Your task to perform on an android device: Show me productivity apps on the Play Store Image 0: 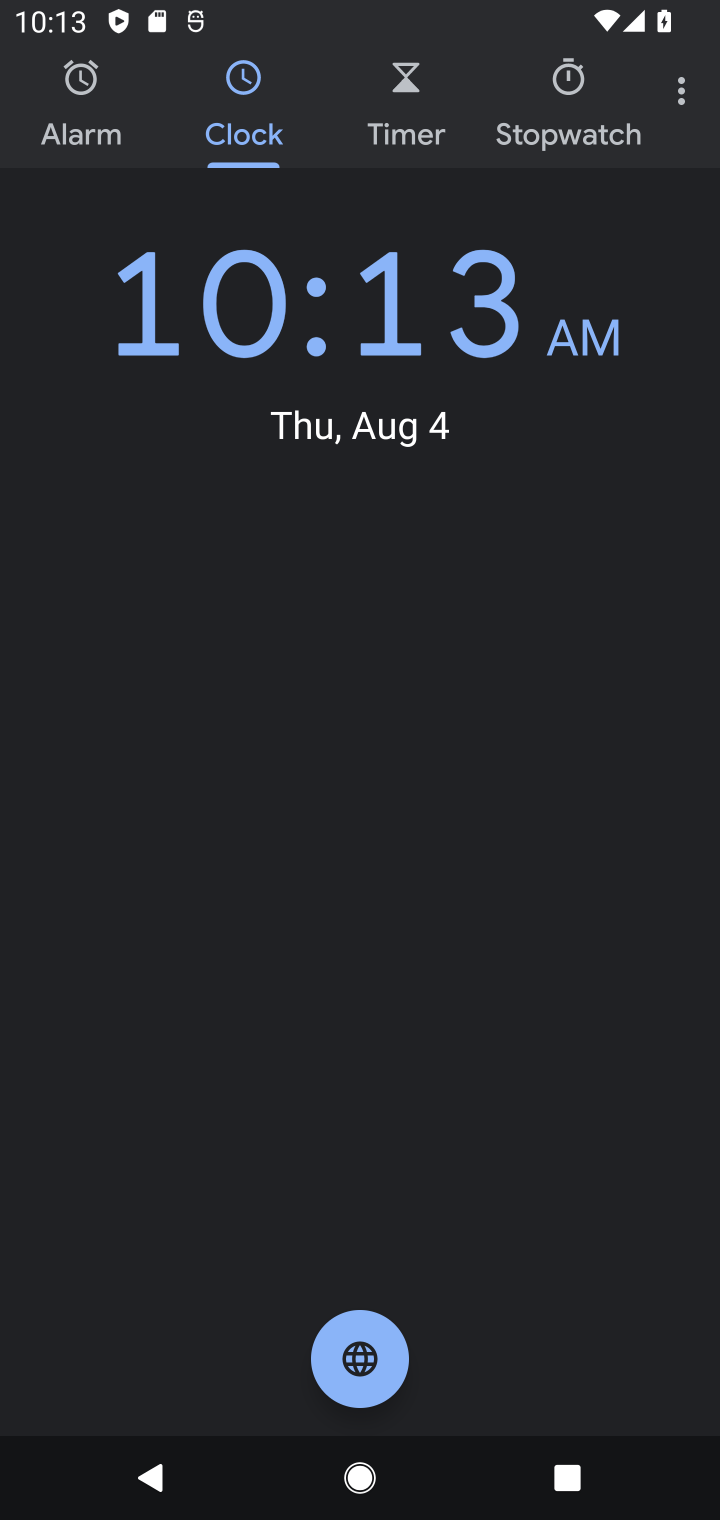
Step 0: press home button
Your task to perform on an android device: Show me productivity apps on the Play Store Image 1: 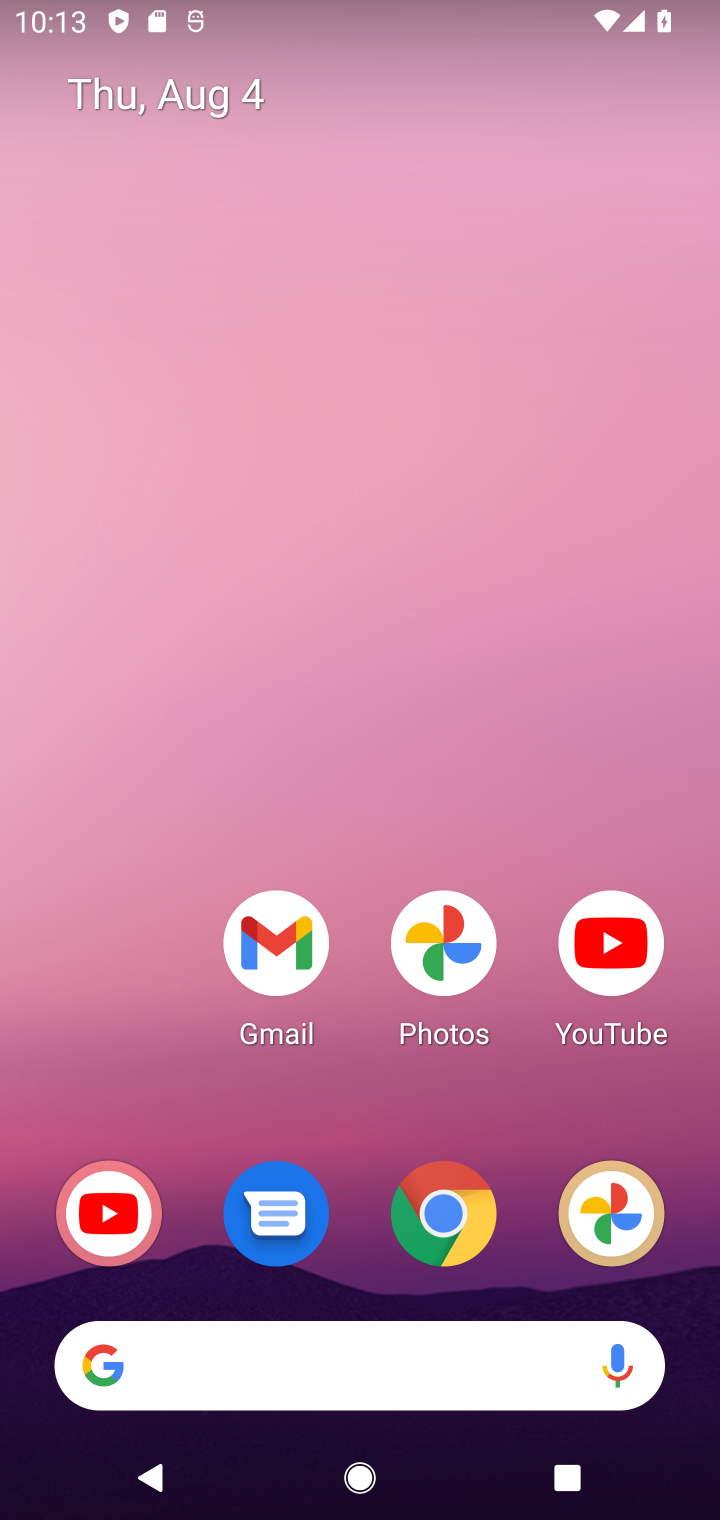
Step 1: drag from (528, 1128) to (482, 398)
Your task to perform on an android device: Show me productivity apps on the Play Store Image 2: 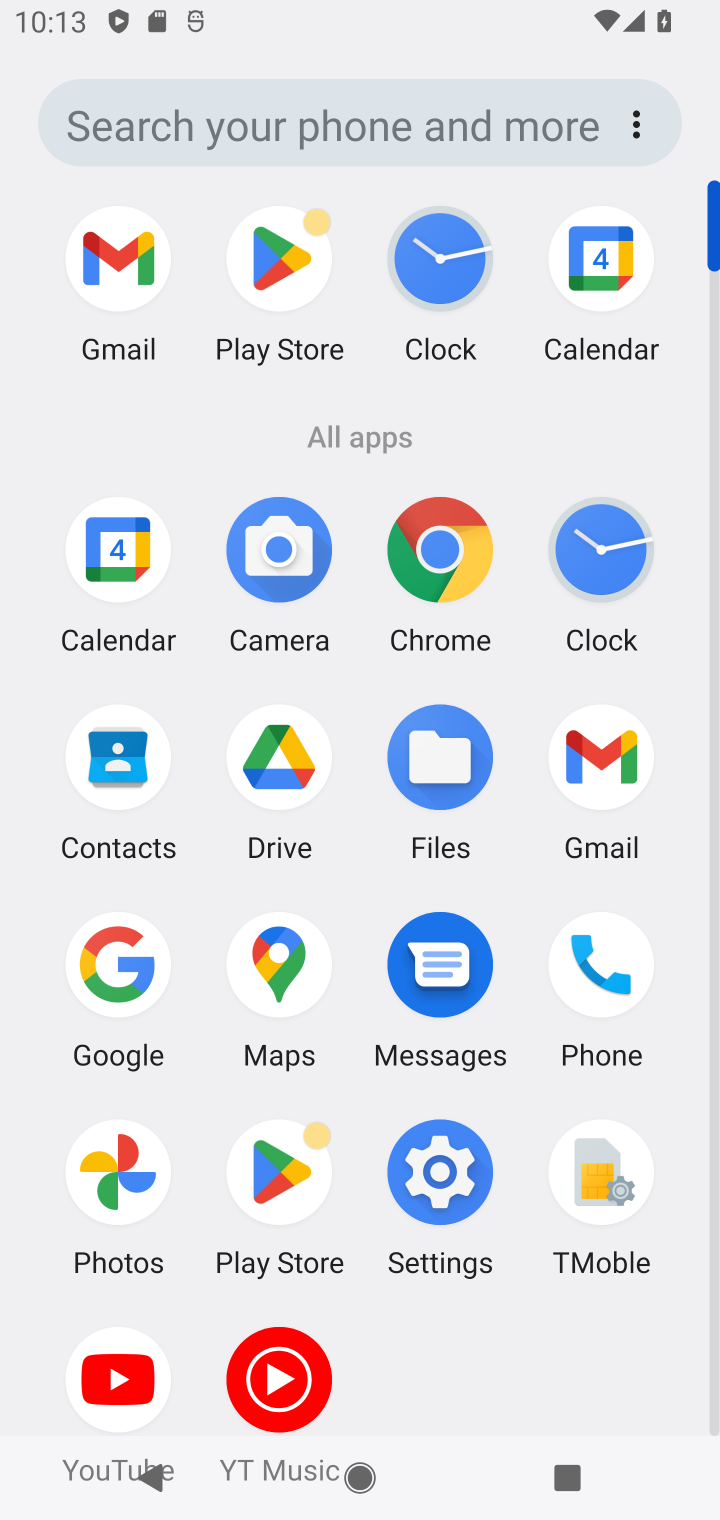
Step 2: click (269, 1163)
Your task to perform on an android device: Show me productivity apps on the Play Store Image 3: 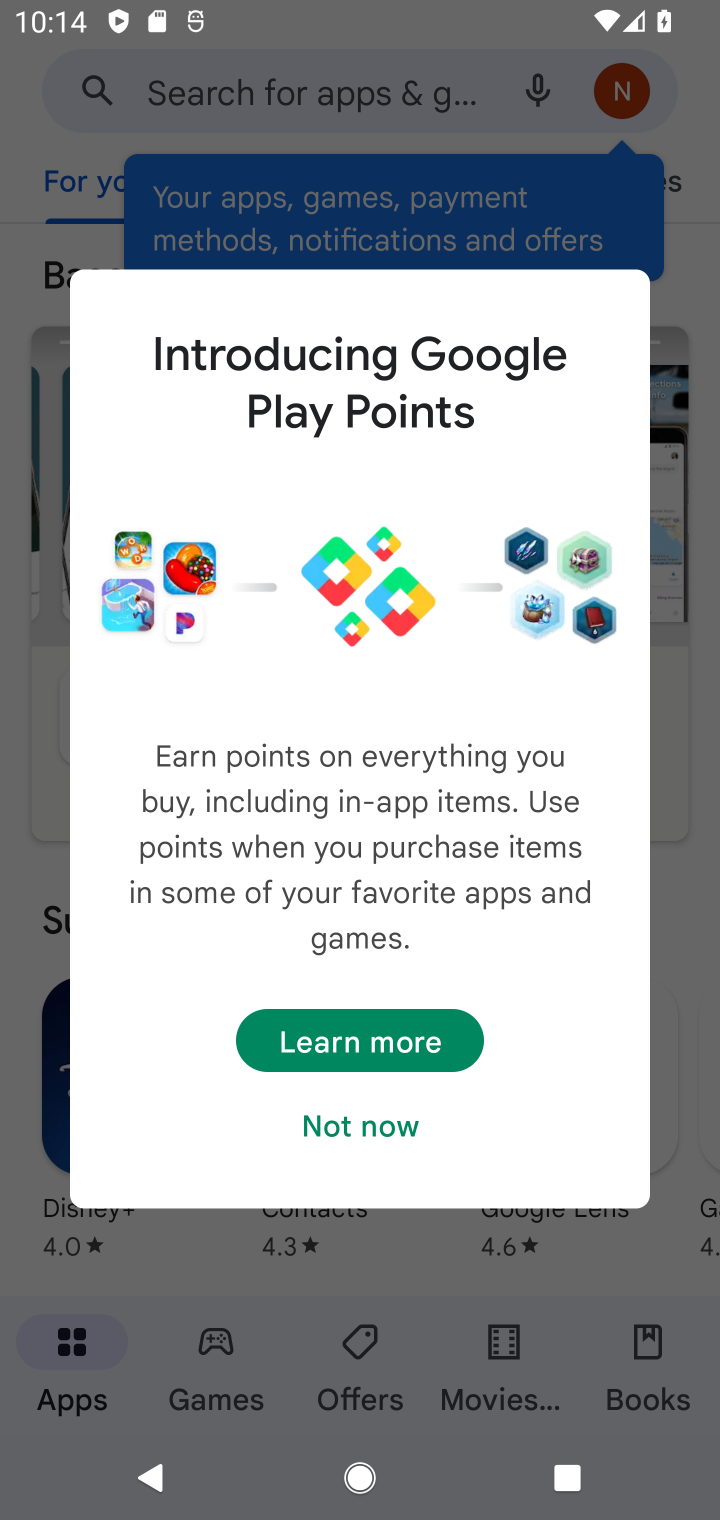
Step 3: click (318, 1135)
Your task to perform on an android device: Show me productivity apps on the Play Store Image 4: 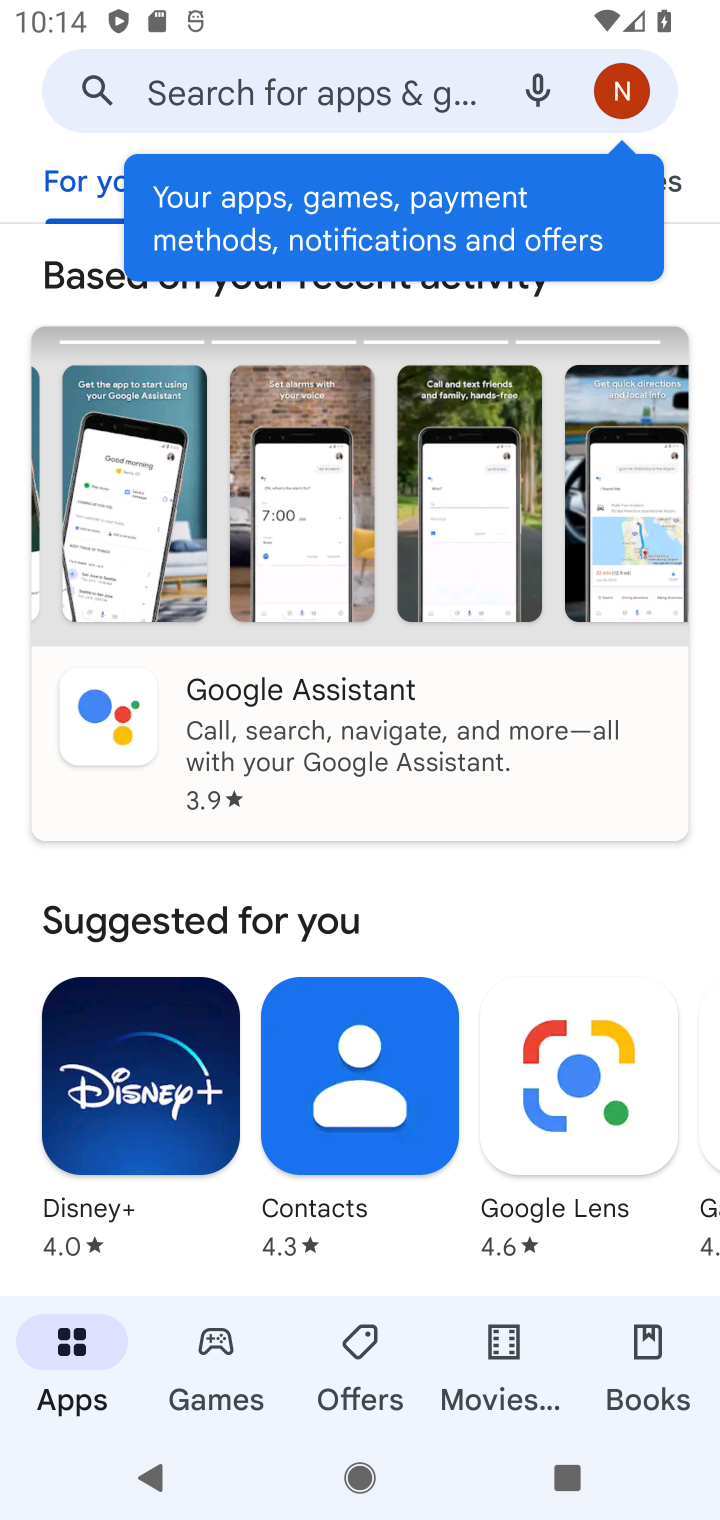
Step 4: press home button
Your task to perform on an android device: Show me productivity apps on the Play Store Image 5: 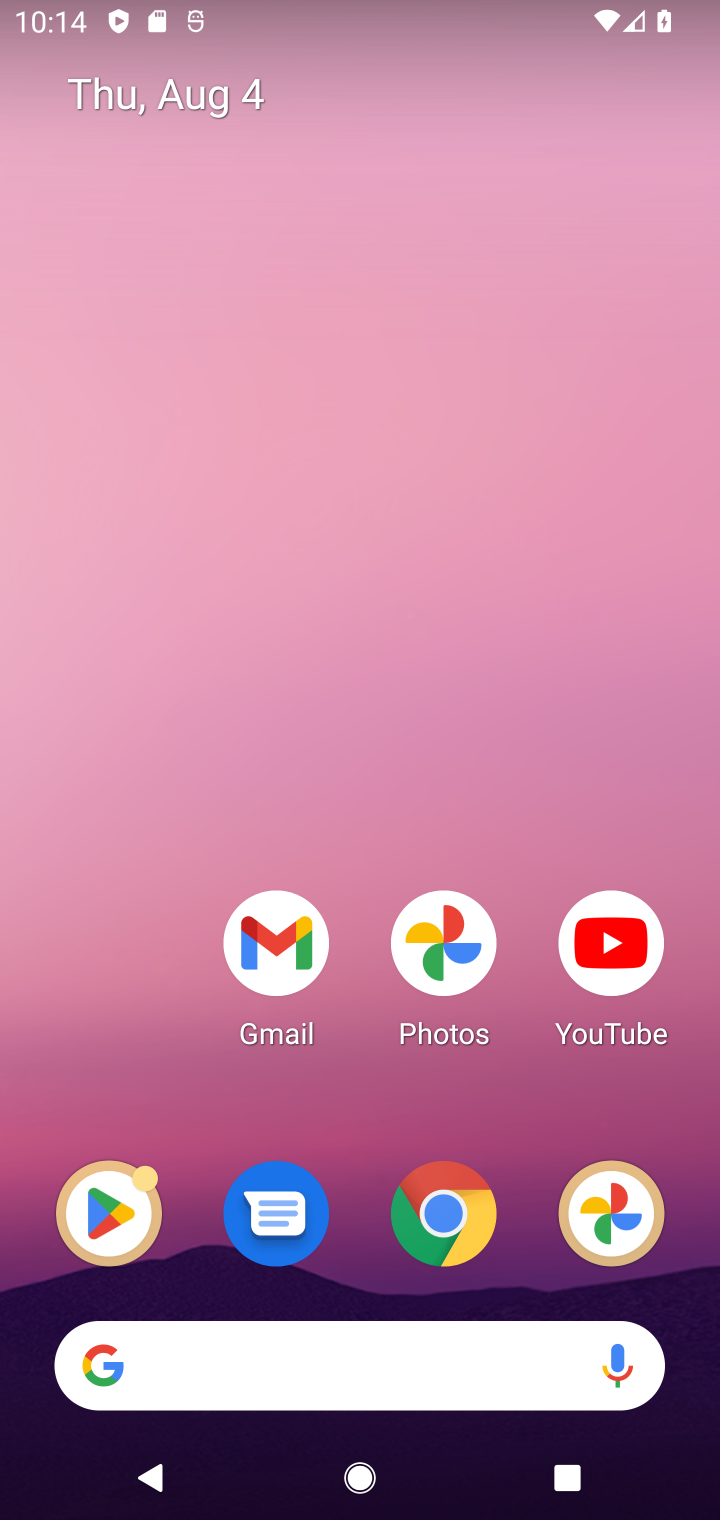
Step 5: click (112, 1220)
Your task to perform on an android device: Show me productivity apps on the Play Store Image 6: 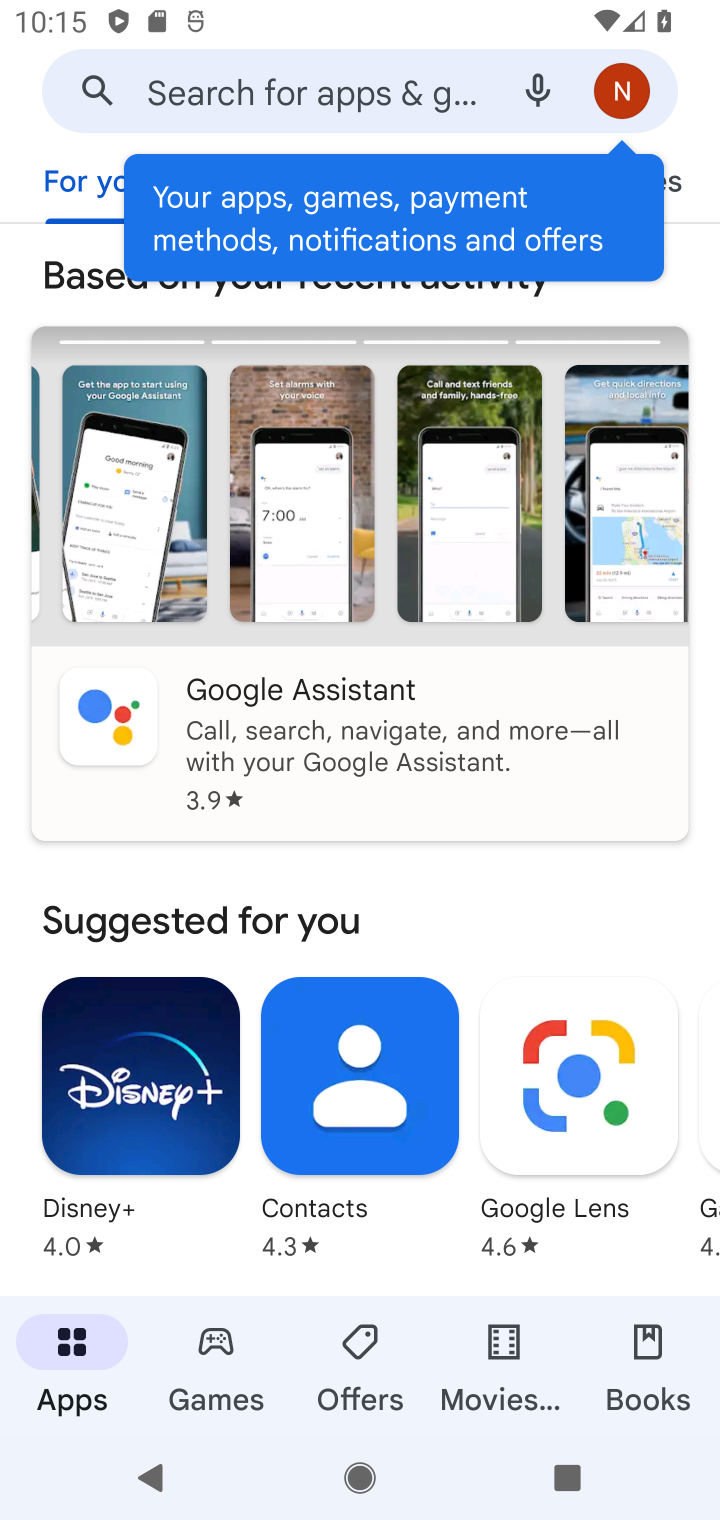
Step 6: drag from (483, 873) to (511, 1113)
Your task to perform on an android device: Show me productivity apps on the Play Store Image 7: 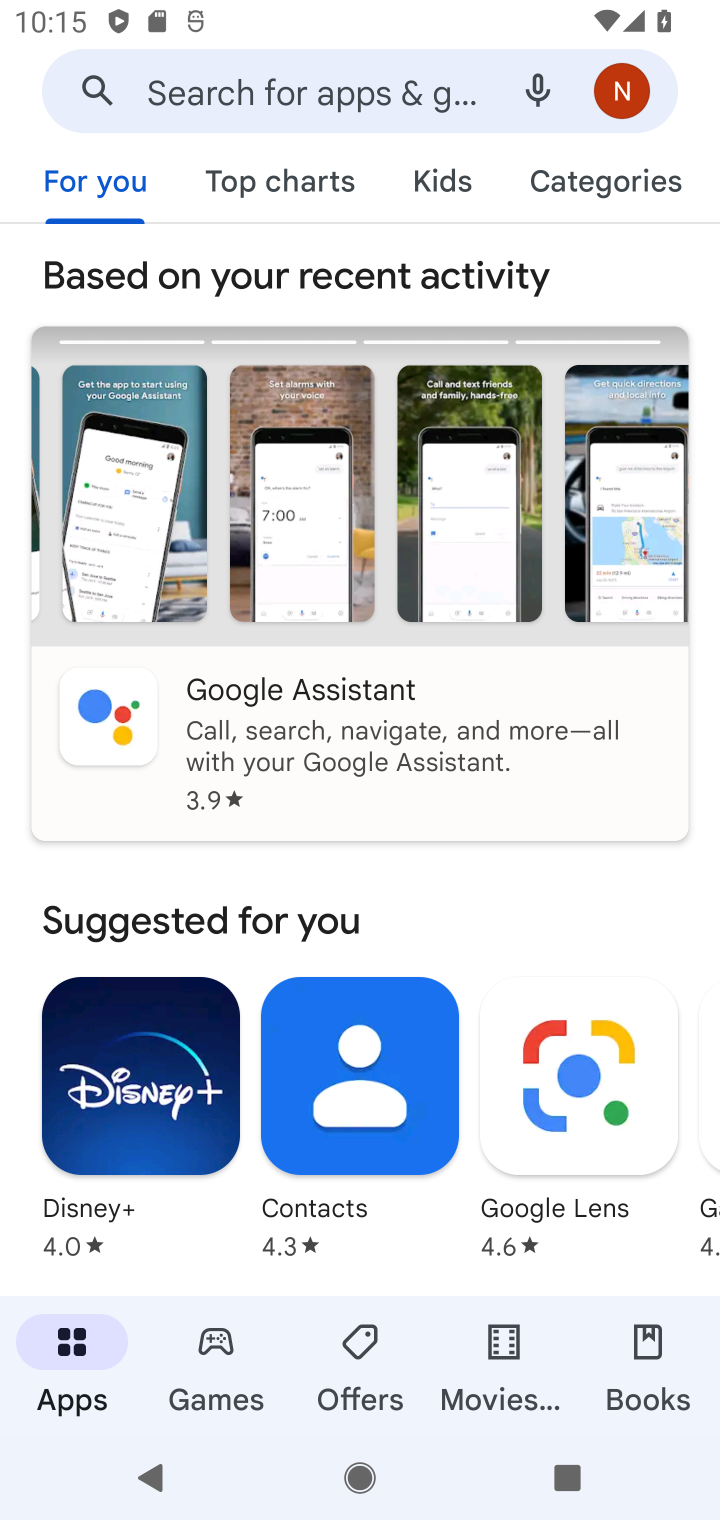
Step 7: click (269, 181)
Your task to perform on an android device: Show me productivity apps on the Play Store Image 8: 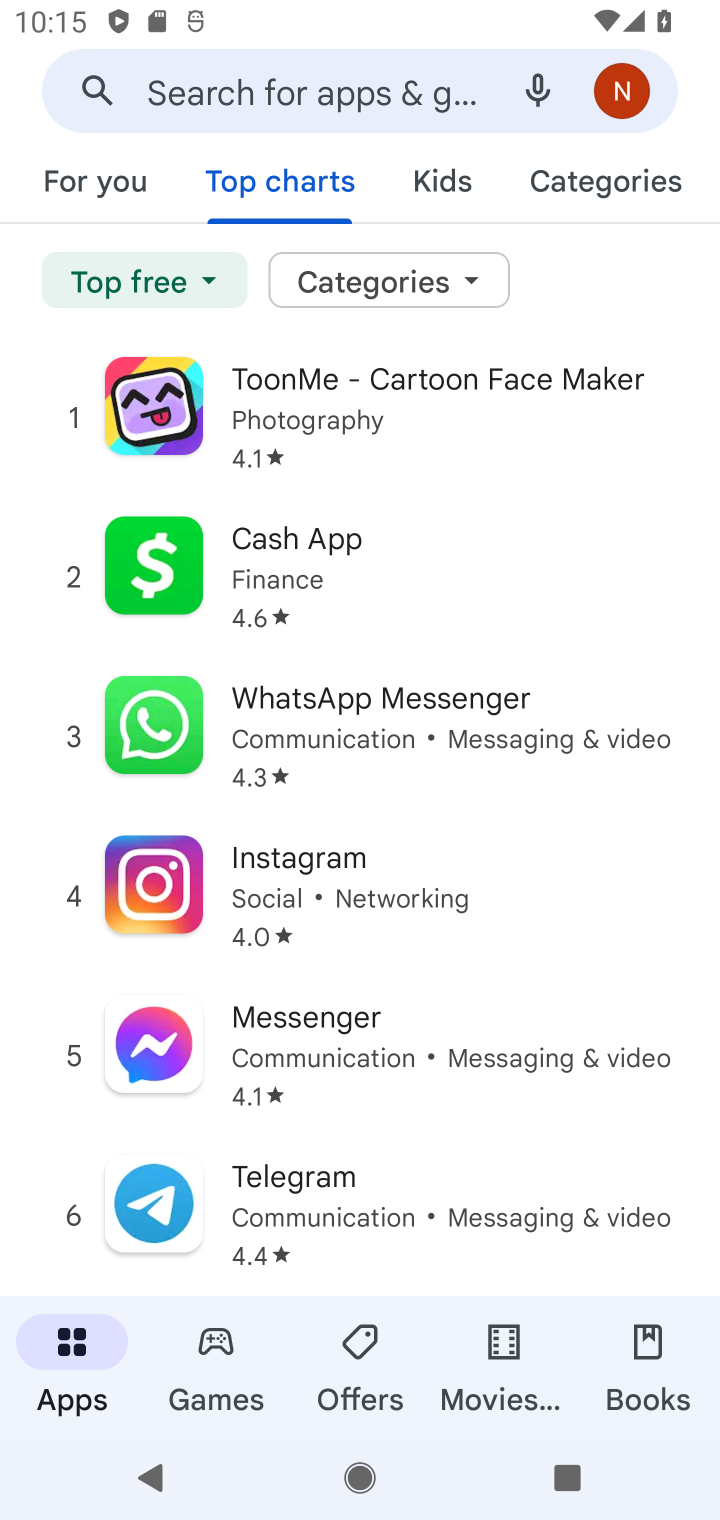
Step 8: click (534, 185)
Your task to perform on an android device: Show me productivity apps on the Play Store Image 9: 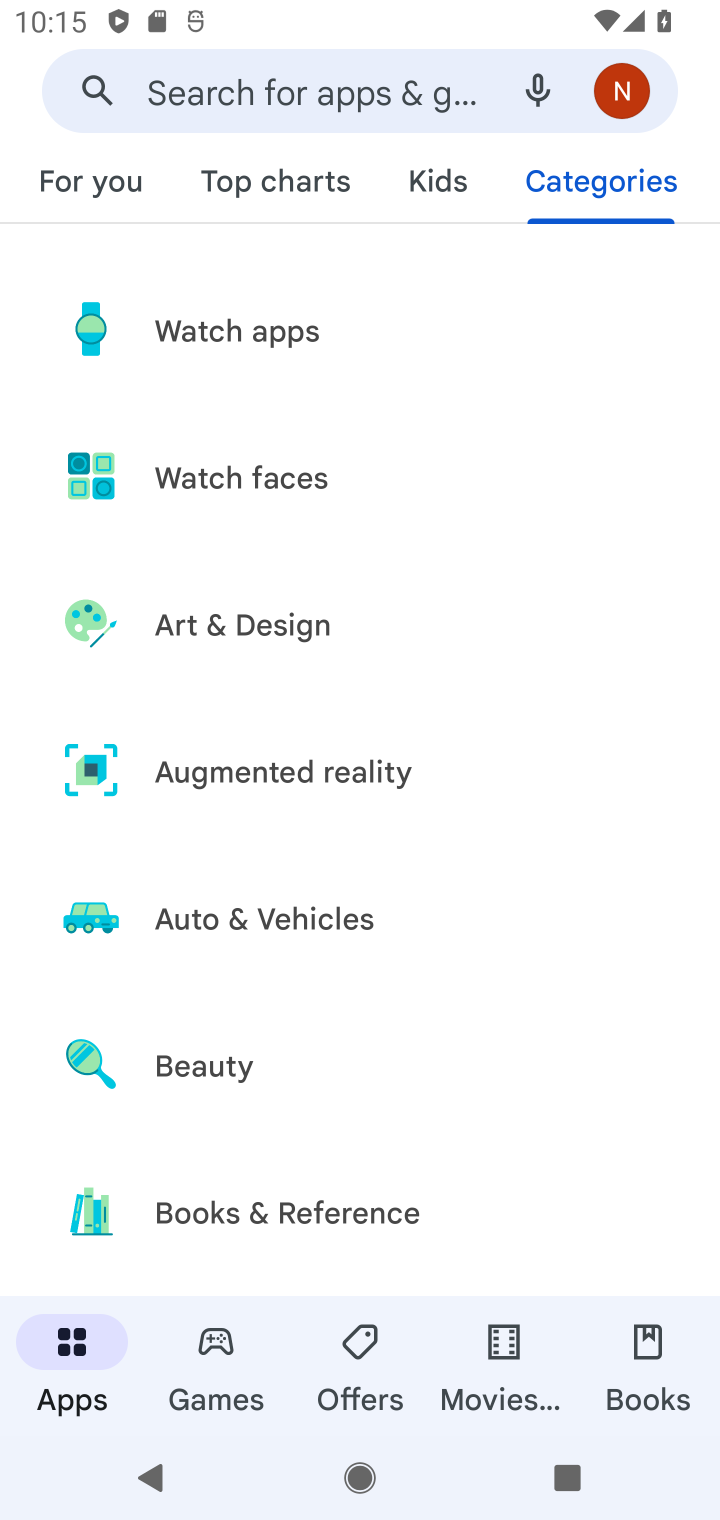
Step 9: drag from (379, 1180) to (257, 174)
Your task to perform on an android device: Show me productivity apps on the Play Store Image 10: 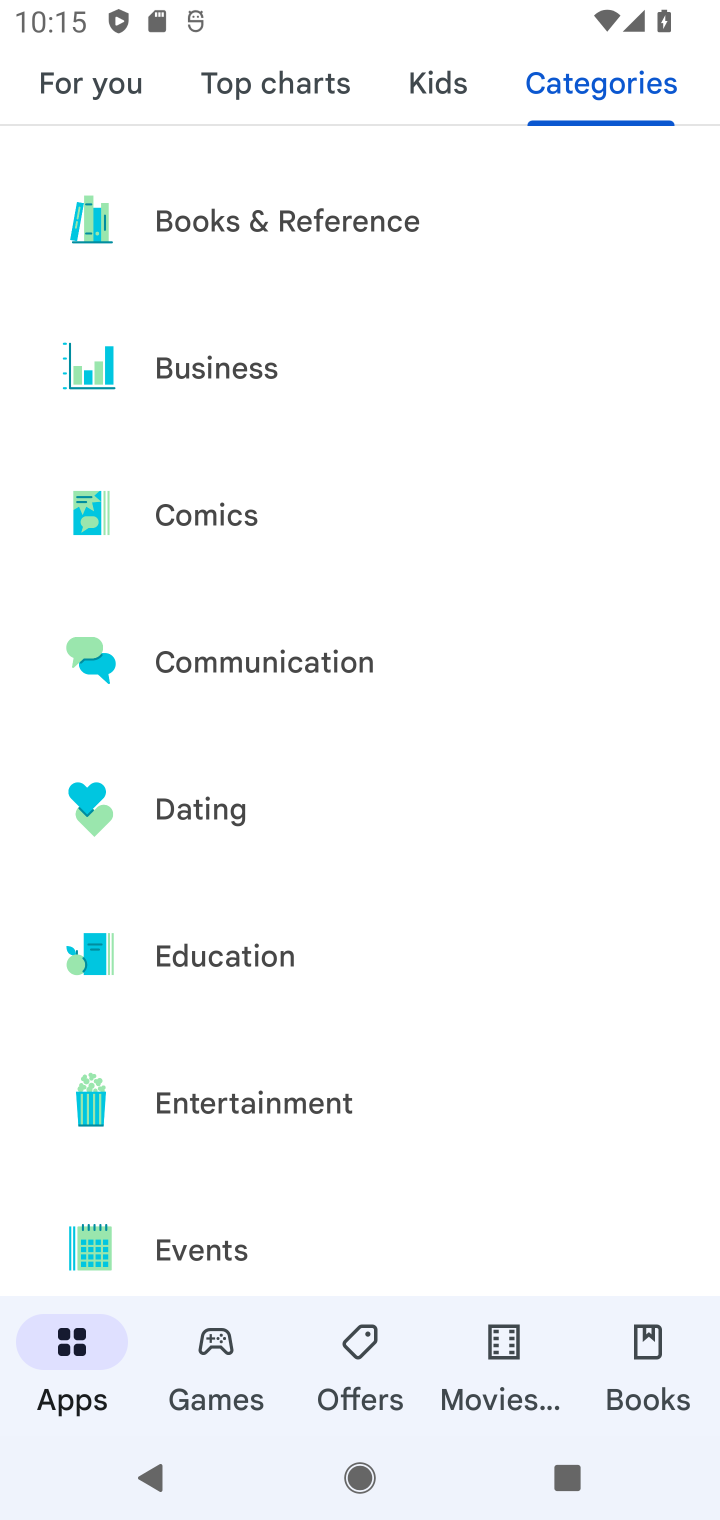
Step 10: drag from (406, 1117) to (377, 373)
Your task to perform on an android device: Show me productivity apps on the Play Store Image 11: 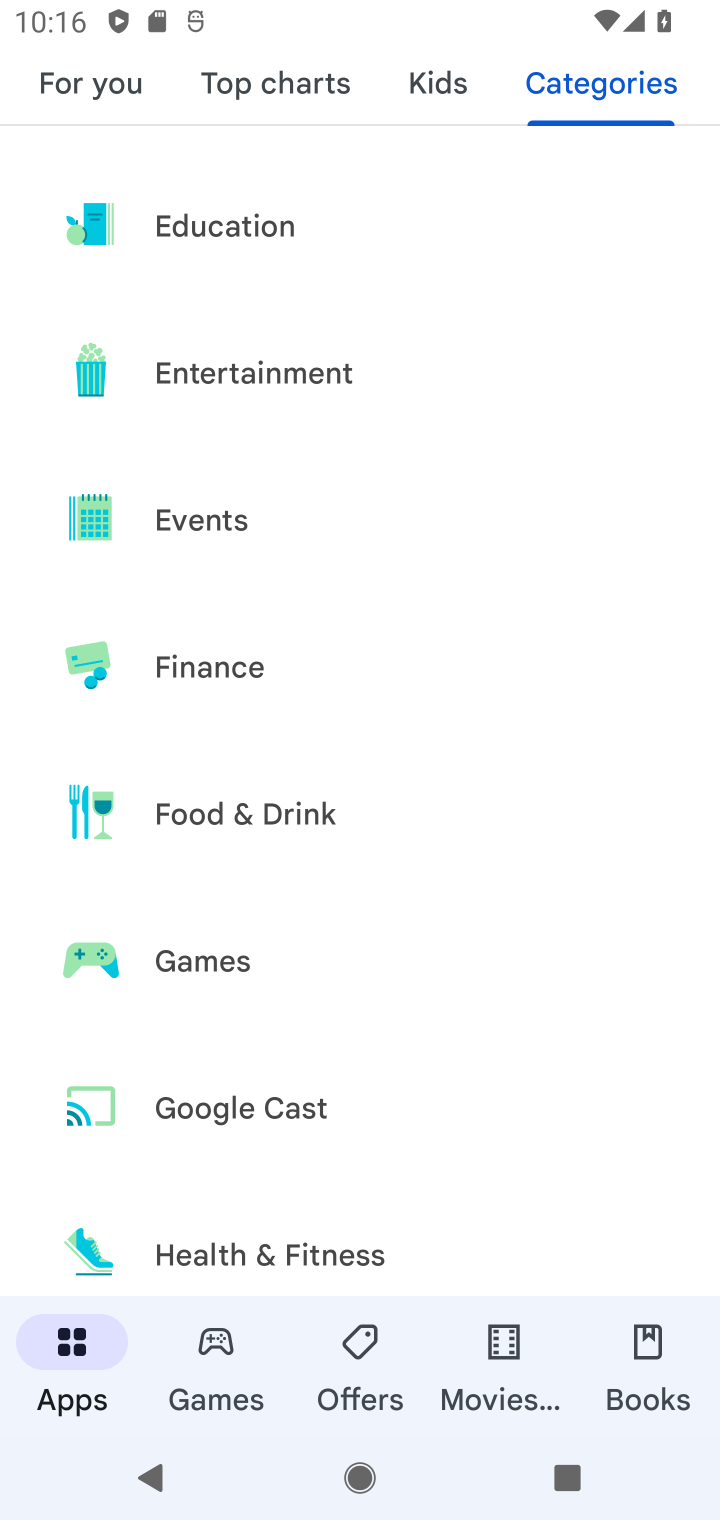
Step 11: drag from (368, 1139) to (355, 408)
Your task to perform on an android device: Show me productivity apps on the Play Store Image 12: 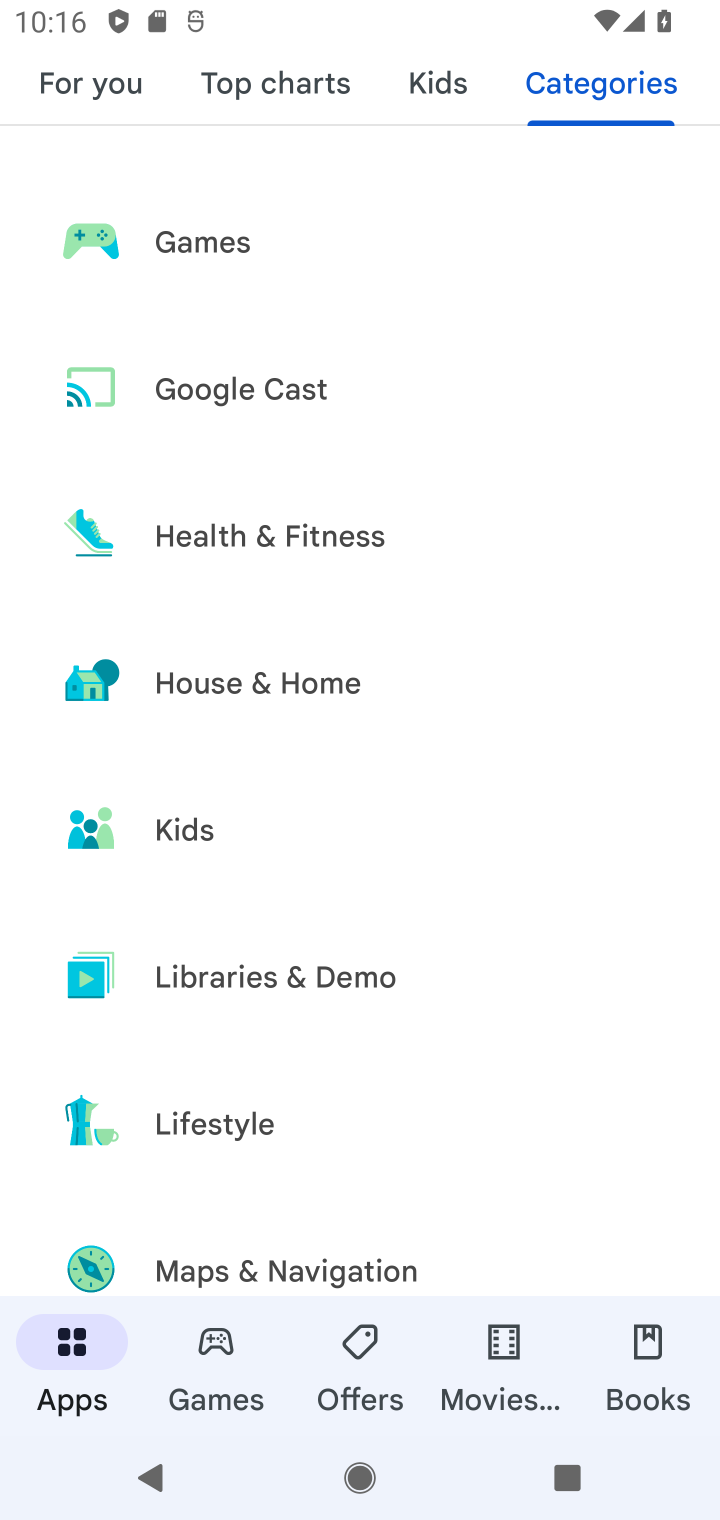
Step 12: drag from (304, 1224) to (293, 512)
Your task to perform on an android device: Show me productivity apps on the Play Store Image 13: 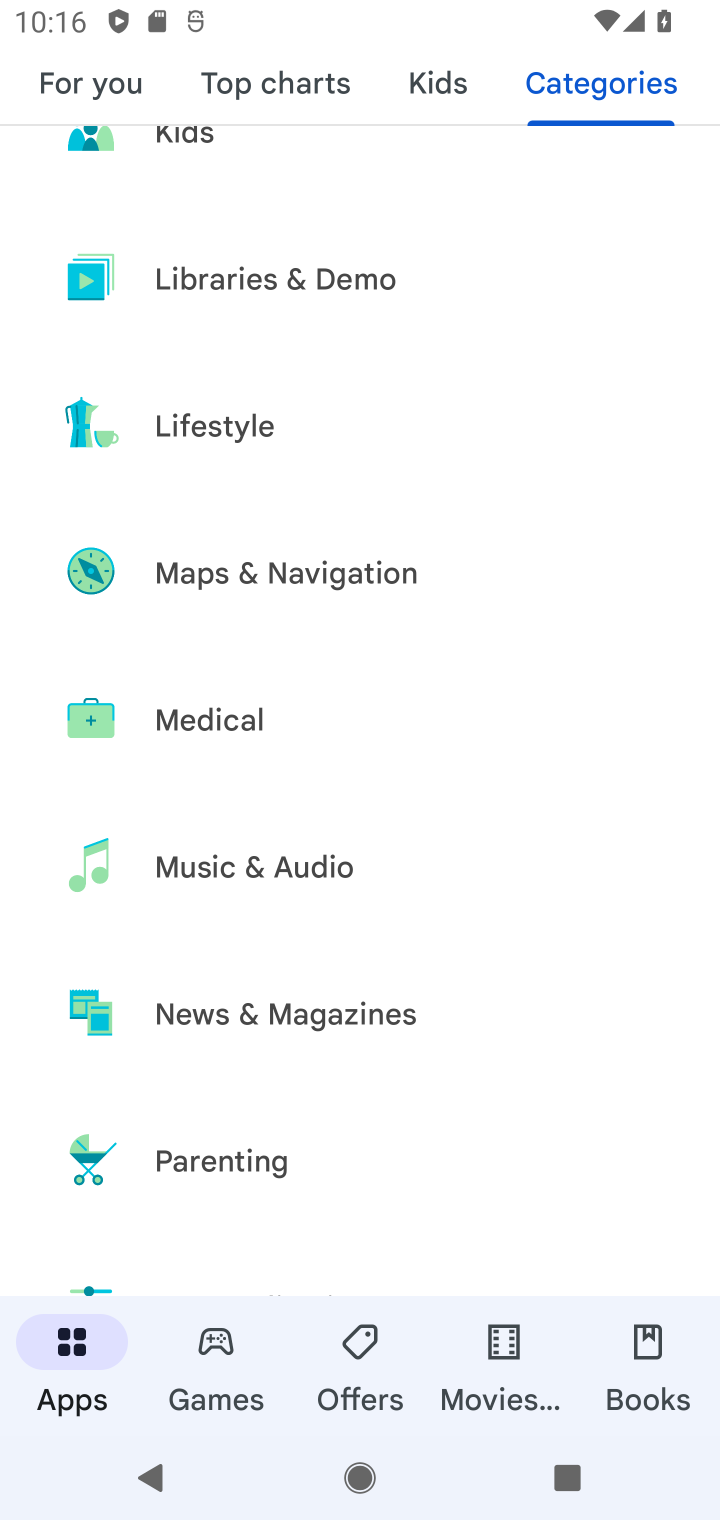
Step 13: drag from (319, 1228) to (282, 535)
Your task to perform on an android device: Show me productivity apps on the Play Store Image 14: 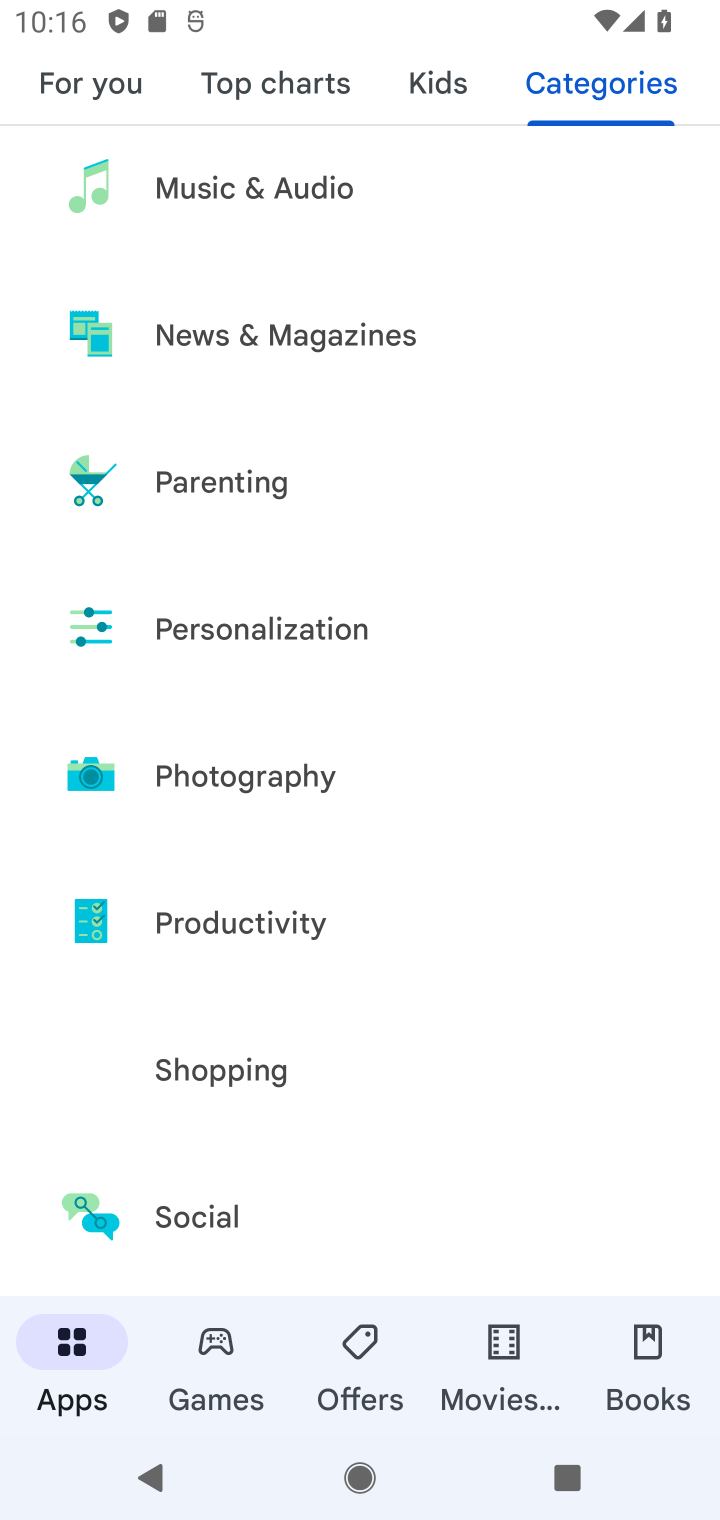
Step 14: click (280, 914)
Your task to perform on an android device: Show me productivity apps on the Play Store Image 15: 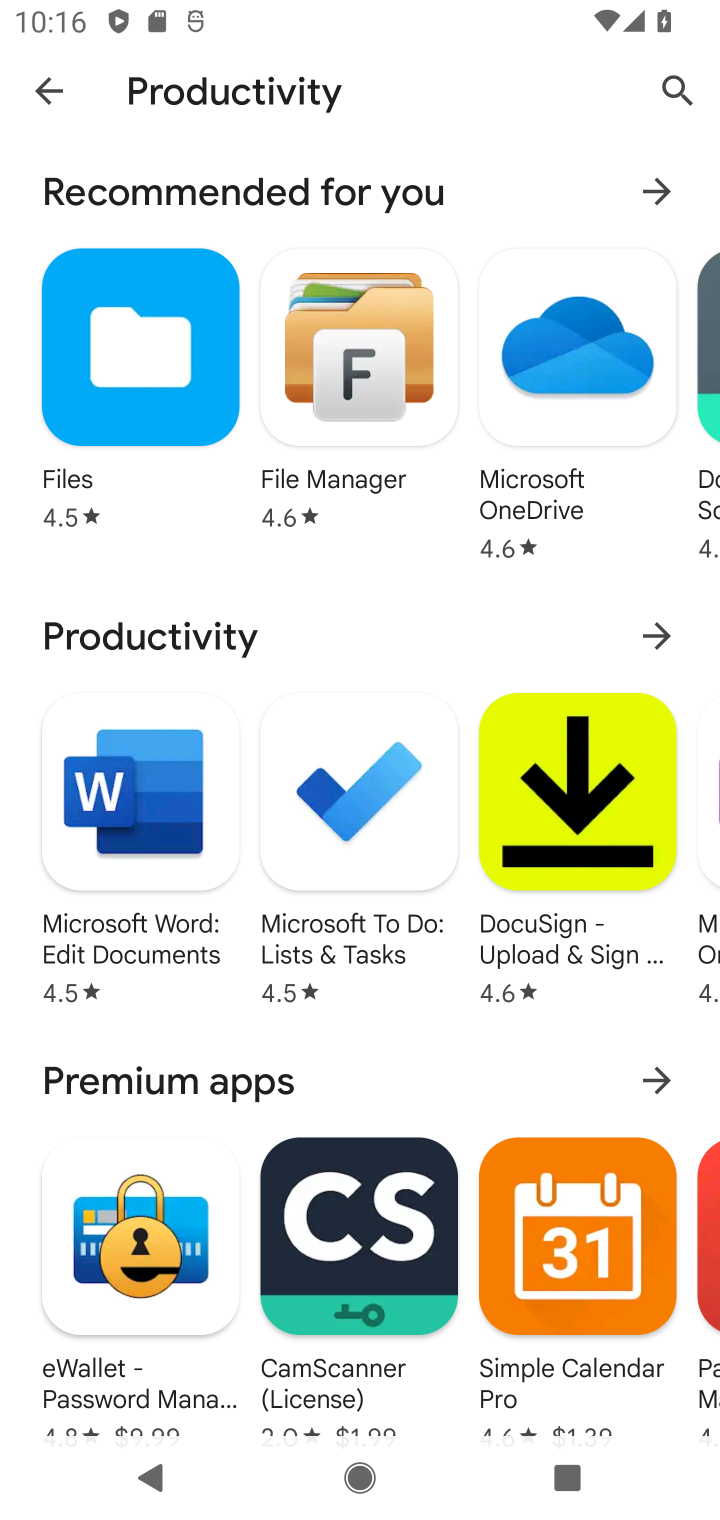
Step 15: task complete